Your task to perform on an android device: Open Wikipedia Image 0: 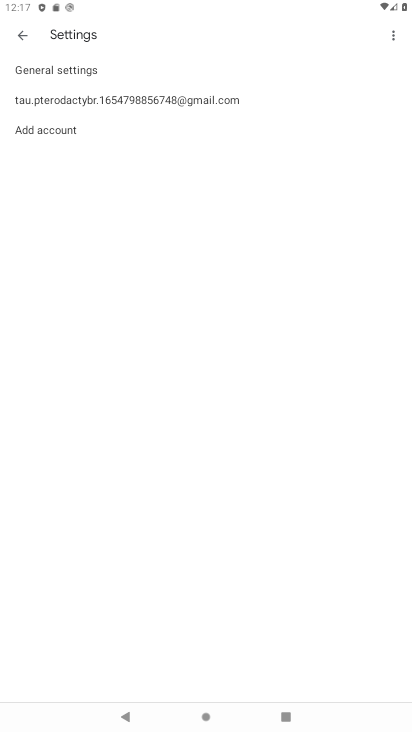
Step 0: press home button
Your task to perform on an android device: Open Wikipedia Image 1: 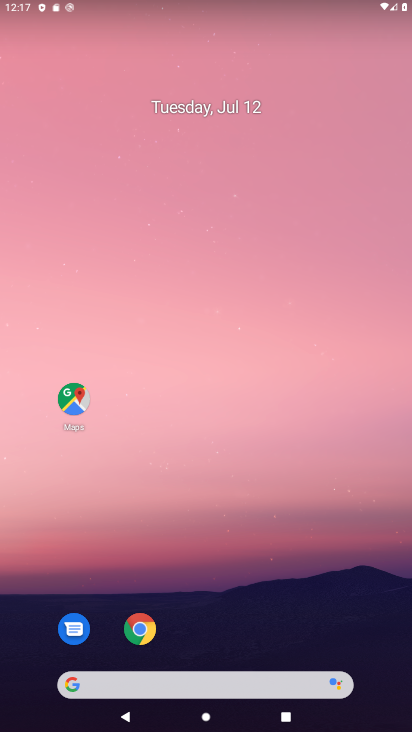
Step 1: click (143, 638)
Your task to perform on an android device: Open Wikipedia Image 2: 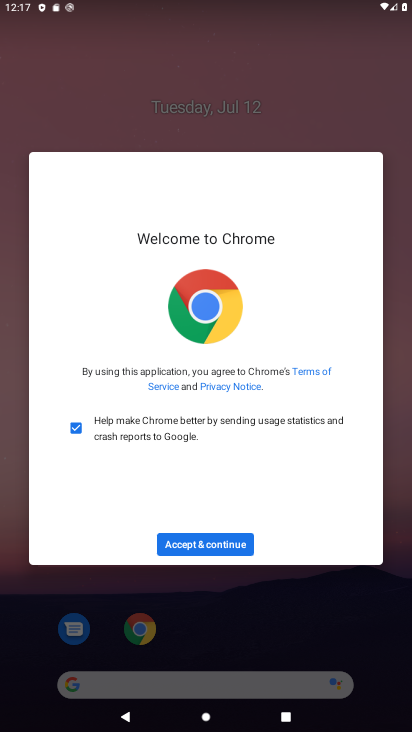
Step 2: click (213, 546)
Your task to perform on an android device: Open Wikipedia Image 3: 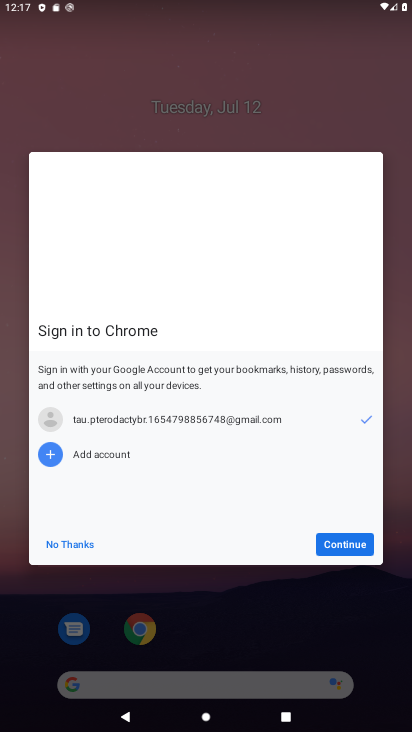
Step 3: click (369, 546)
Your task to perform on an android device: Open Wikipedia Image 4: 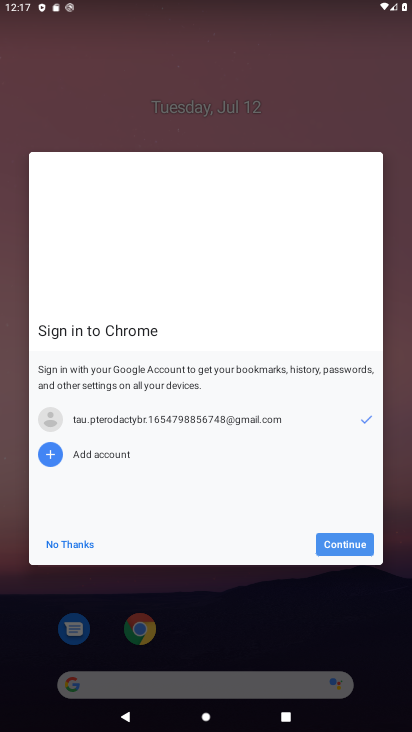
Step 4: click (369, 546)
Your task to perform on an android device: Open Wikipedia Image 5: 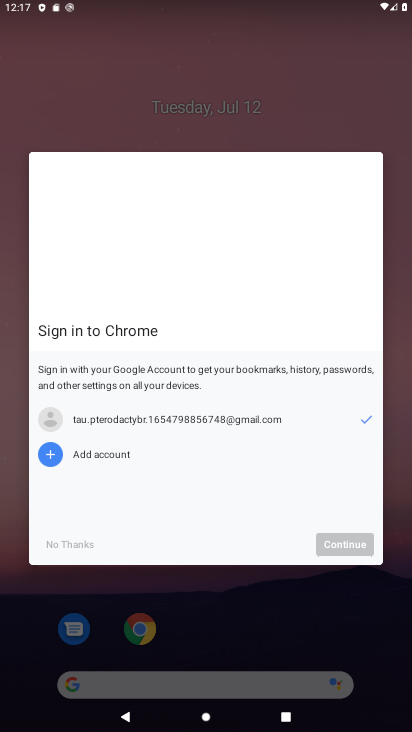
Step 5: click (369, 546)
Your task to perform on an android device: Open Wikipedia Image 6: 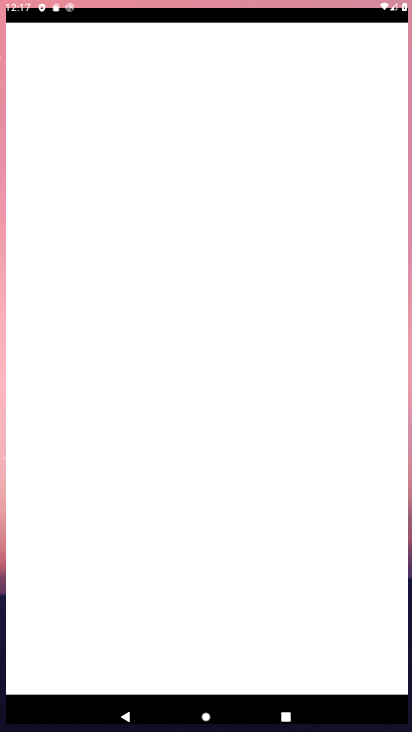
Step 6: click (369, 546)
Your task to perform on an android device: Open Wikipedia Image 7: 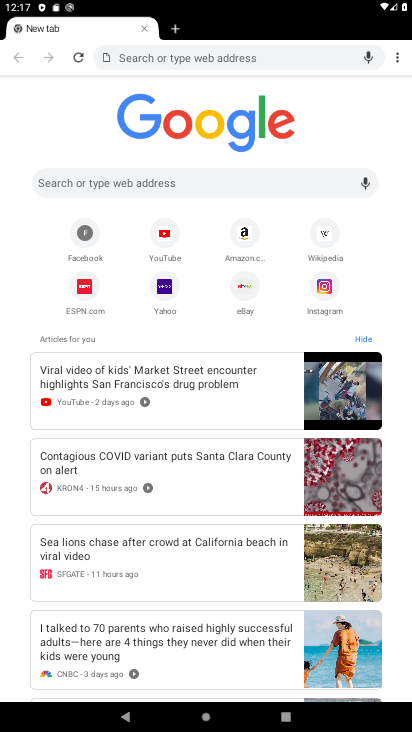
Step 7: click (152, 54)
Your task to perform on an android device: Open Wikipedia Image 8: 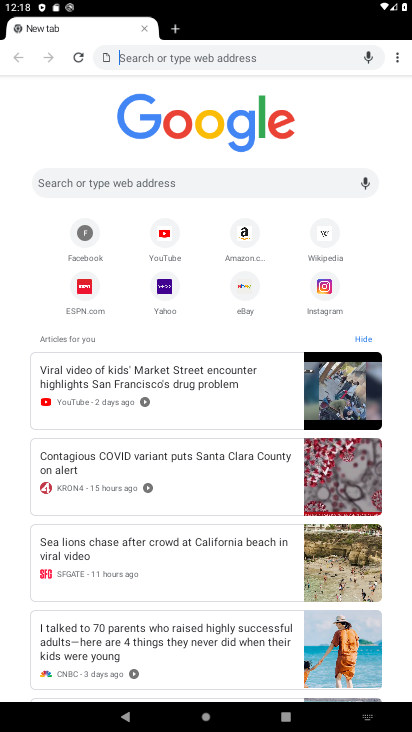
Step 8: type " Wikipedia"
Your task to perform on an android device: Open Wikipedia Image 9: 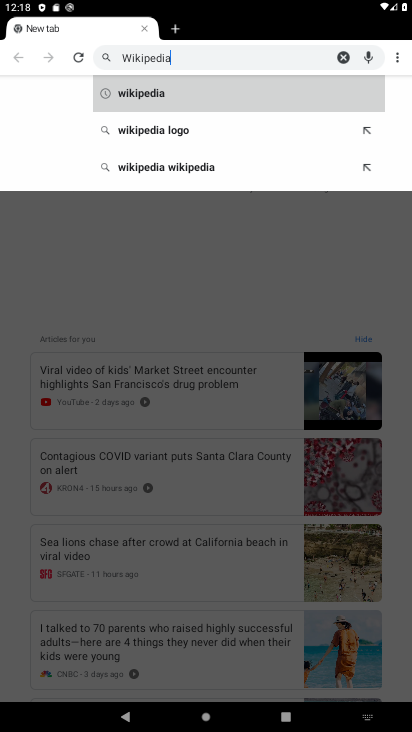
Step 9: click (173, 87)
Your task to perform on an android device: Open Wikipedia Image 10: 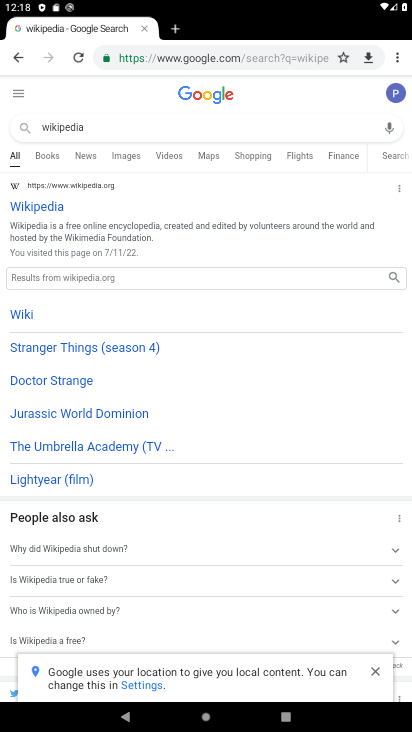
Step 10: task complete